Your task to perform on an android device: change the clock display to digital Image 0: 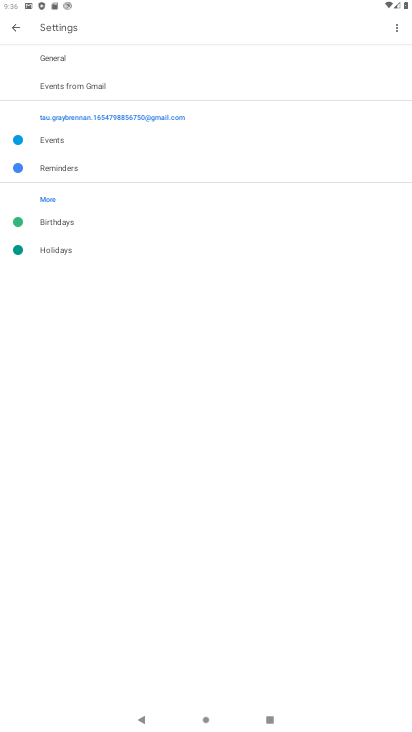
Step 0: press home button
Your task to perform on an android device: change the clock display to digital Image 1: 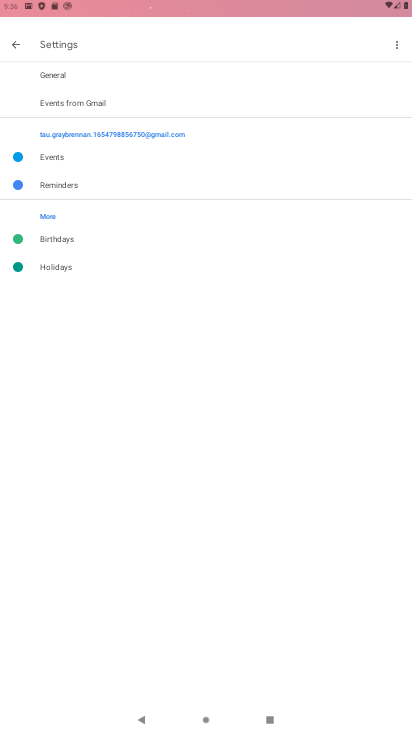
Step 1: drag from (366, 680) to (269, 52)
Your task to perform on an android device: change the clock display to digital Image 2: 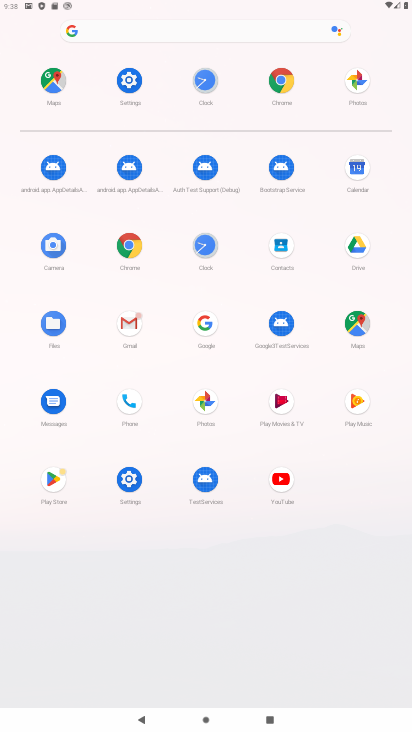
Step 2: click (206, 257)
Your task to perform on an android device: change the clock display to digital Image 3: 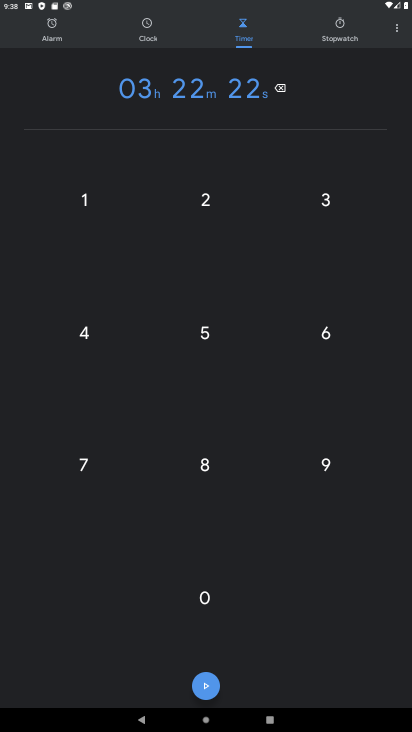
Step 3: click (395, 22)
Your task to perform on an android device: change the clock display to digital Image 4: 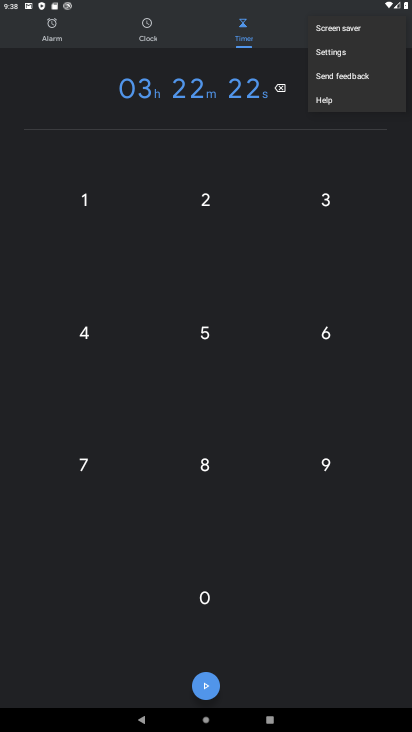
Step 4: click (350, 60)
Your task to perform on an android device: change the clock display to digital Image 5: 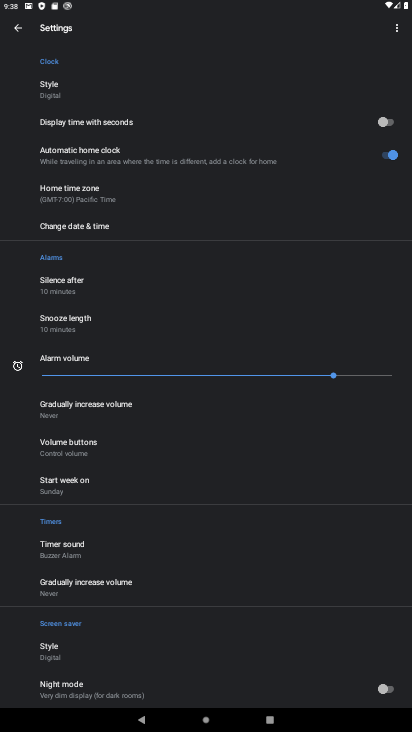
Step 5: click (67, 91)
Your task to perform on an android device: change the clock display to digital Image 6: 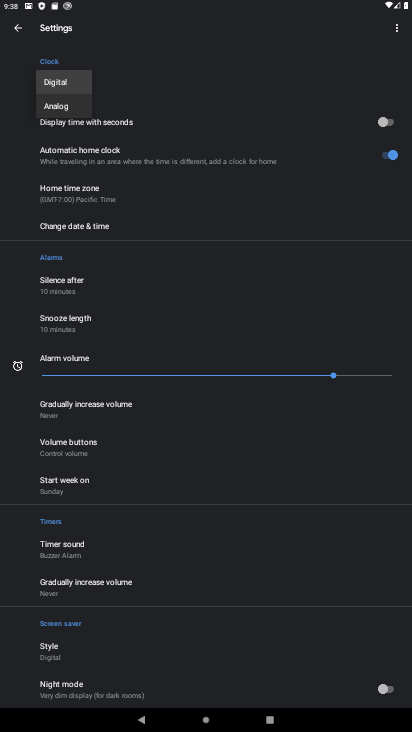
Step 6: task complete